Your task to perform on an android device: toggle priority inbox in the gmail app Image 0: 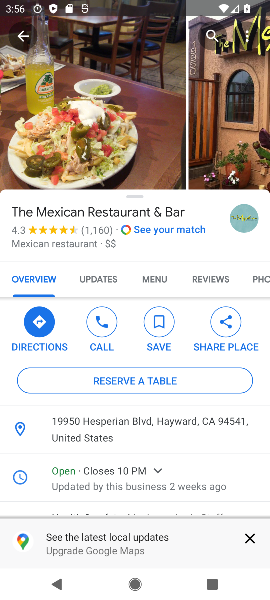
Step 0: press back button
Your task to perform on an android device: toggle priority inbox in the gmail app Image 1: 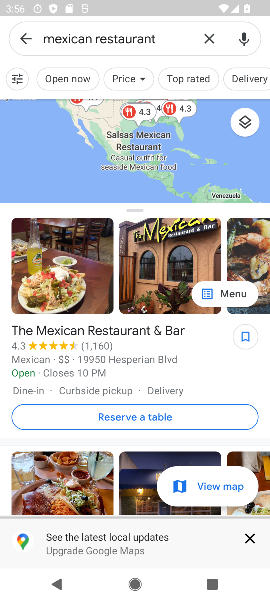
Step 1: drag from (143, 575) to (115, 378)
Your task to perform on an android device: toggle priority inbox in the gmail app Image 2: 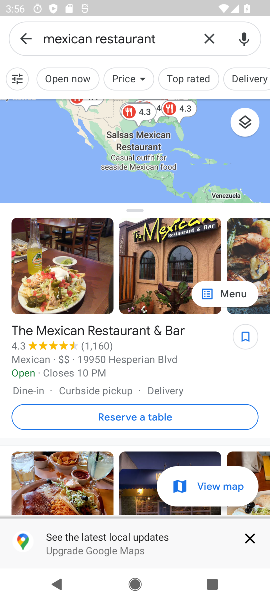
Step 2: press back button
Your task to perform on an android device: toggle priority inbox in the gmail app Image 3: 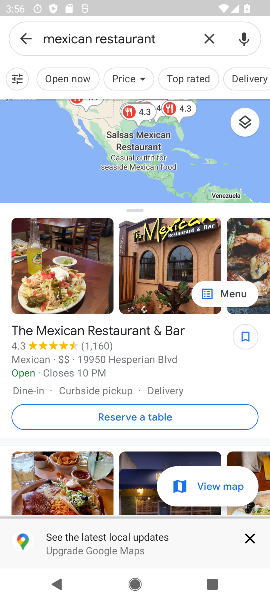
Step 3: press back button
Your task to perform on an android device: toggle priority inbox in the gmail app Image 4: 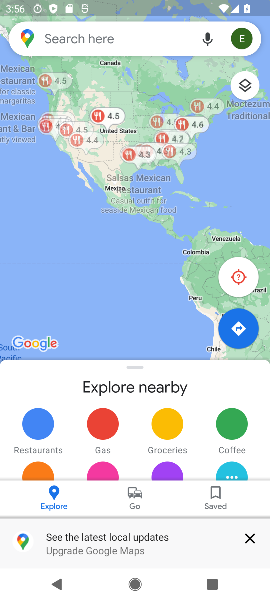
Step 4: press back button
Your task to perform on an android device: toggle priority inbox in the gmail app Image 5: 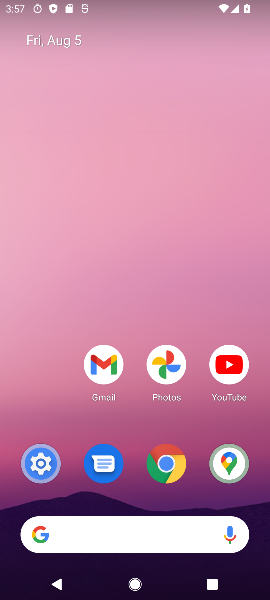
Step 5: drag from (164, 559) to (113, 251)
Your task to perform on an android device: toggle priority inbox in the gmail app Image 6: 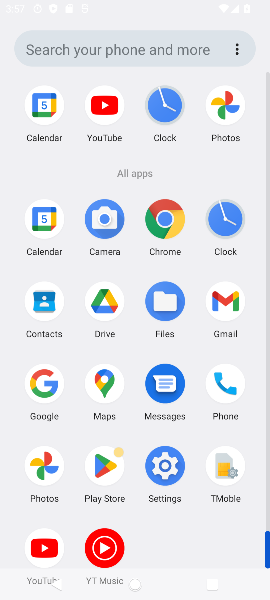
Step 6: drag from (142, 471) to (123, 262)
Your task to perform on an android device: toggle priority inbox in the gmail app Image 7: 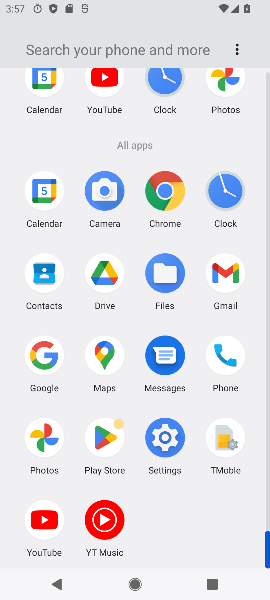
Step 7: click (230, 279)
Your task to perform on an android device: toggle priority inbox in the gmail app Image 8: 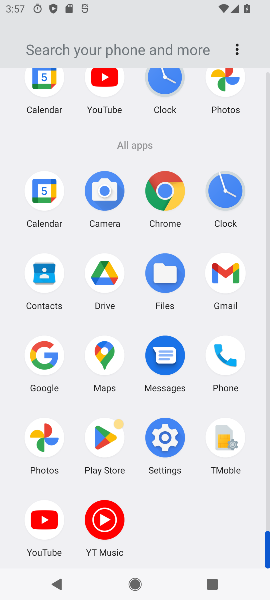
Step 8: click (212, 272)
Your task to perform on an android device: toggle priority inbox in the gmail app Image 9: 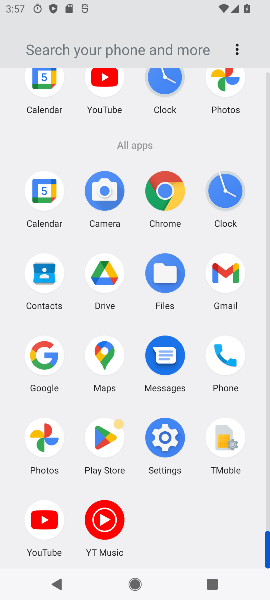
Step 9: click (215, 274)
Your task to perform on an android device: toggle priority inbox in the gmail app Image 10: 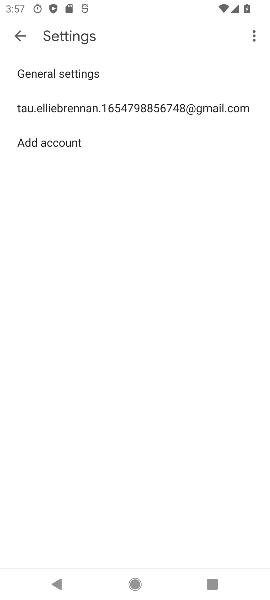
Step 10: click (23, 34)
Your task to perform on an android device: toggle priority inbox in the gmail app Image 11: 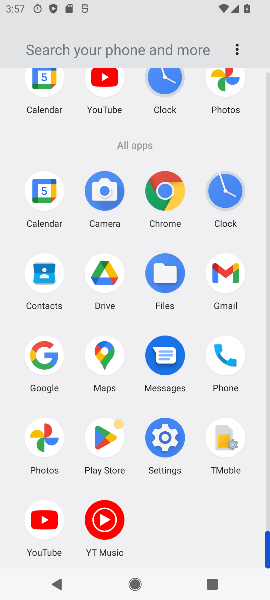
Step 11: click (217, 284)
Your task to perform on an android device: toggle priority inbox in the gmail app Image 12: 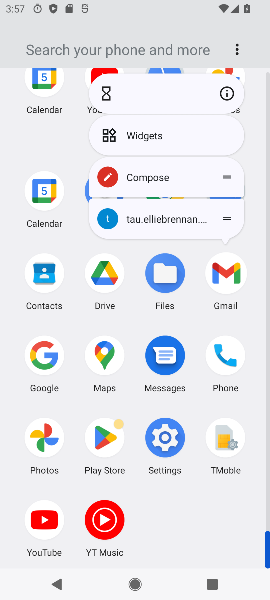
Step 12: click (218, 284)
Your task to perform on an android device: toggle priority inbox in the gmail app Image 13: 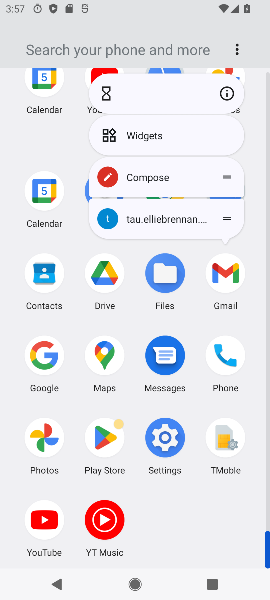
Step 13: click (224, 263)
Your task to perform on an android device: toggle priority inbox in the gmail app Image 14: 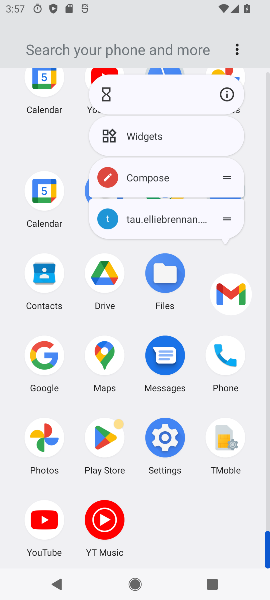
Step 14: click (229, 284)
Your task to perform on an android device: toggle priority inbox in the gmail app Image 15: 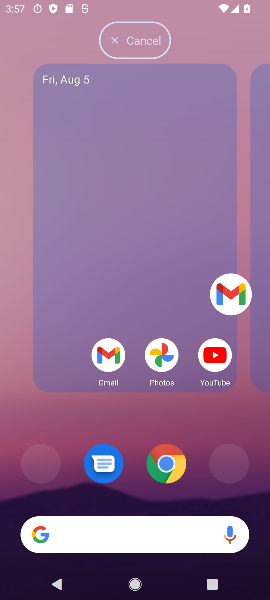
Step 15: click (228, 285)
Your task to perform on an android device: toggle priority inbox in the gmail app Image 16: 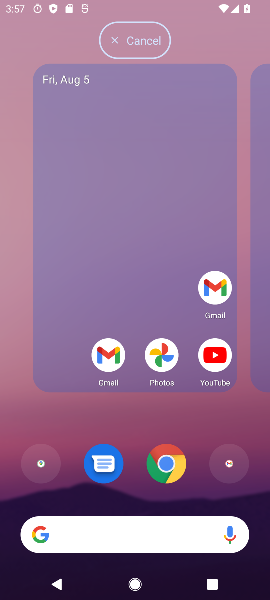
Step 16: click (229, 286)
Your task to perform on an android device: toggle priority inbox in the gmail app Image 17: 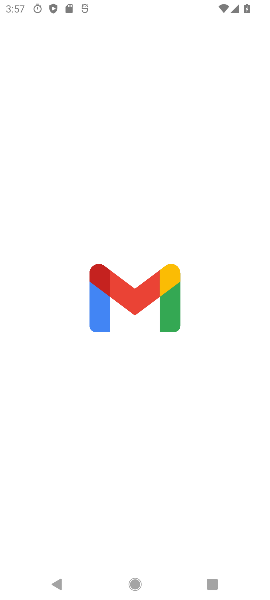
Step 17: click (213, 281)
Your task to perform on an android device: toggle priority inbox in the gmail app Image 18: 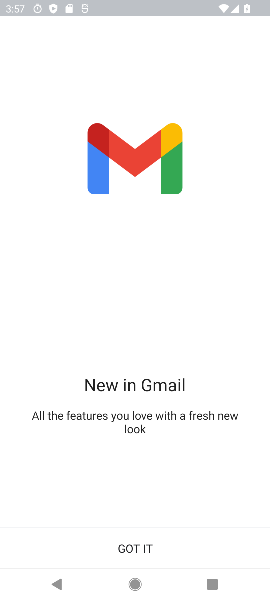
Step 18: click (139, 550)
Your task to perform on an android device: toggle priority inbox in the gmail app Image 19: 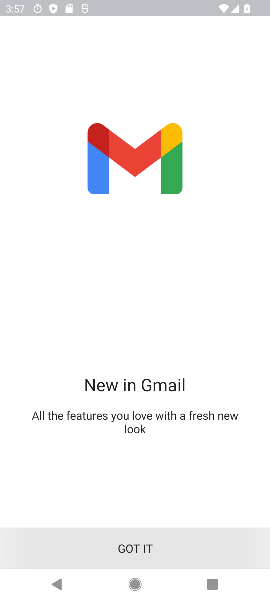
Step 19: click (141, 549)
Your task to perform on an android device: toggle priority inbox in the gmail app Image 20: 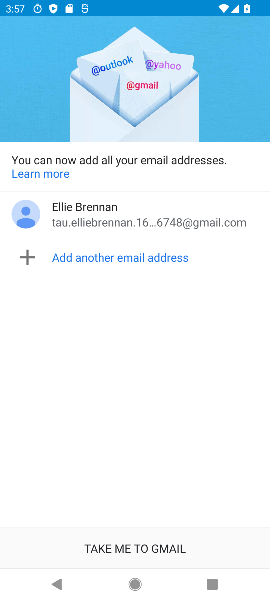
Step 20: click (131, 542)
Your task to perform on an android device: toggle priority inbox in the gmail app Image 21: 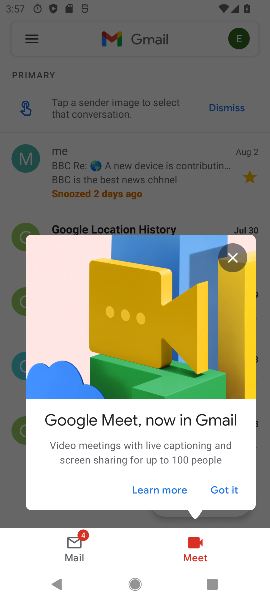
Step 21: click (231, 264)
Your task to perform on an android device: toggle priority inbox in the gmail app Image 22: 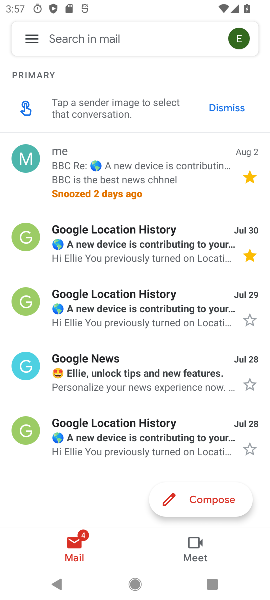
Step 22: click (25, 33)
Your task to perform on an android device: toggle priority inbox in the gmail app Image 23: 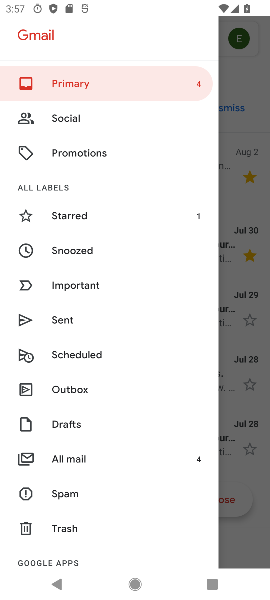
Step 23: click (68, 444)
Your task to perform on an android device: toggle priority inbox in the gmail app Image 24: 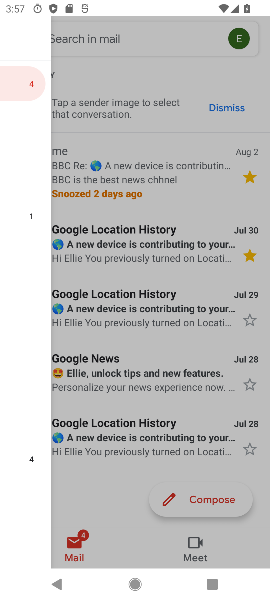
Step 24: click (68, 447)
Your task to perform on an android device: toggle priority inbox in the gmail app Image 25: 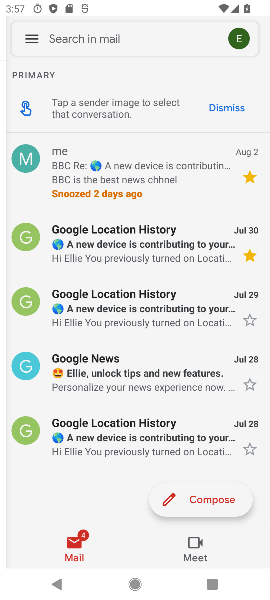
Step 25: click (68, 452)
Your task to perform on an android device: toggle priority inbox in the gmail app Image 26: 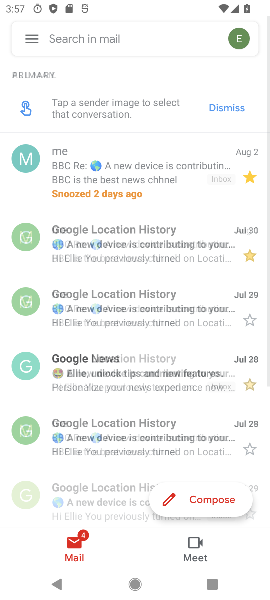
Step 26: click (68, 452)
Your task to perform on an android device: toggle priority inbox in the gmail app Image 27: 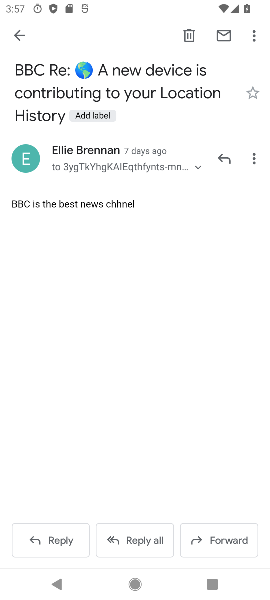
Step 27: task complete